Your task to perform on an android device: What's a good restaurant in Seattle? Image 0: 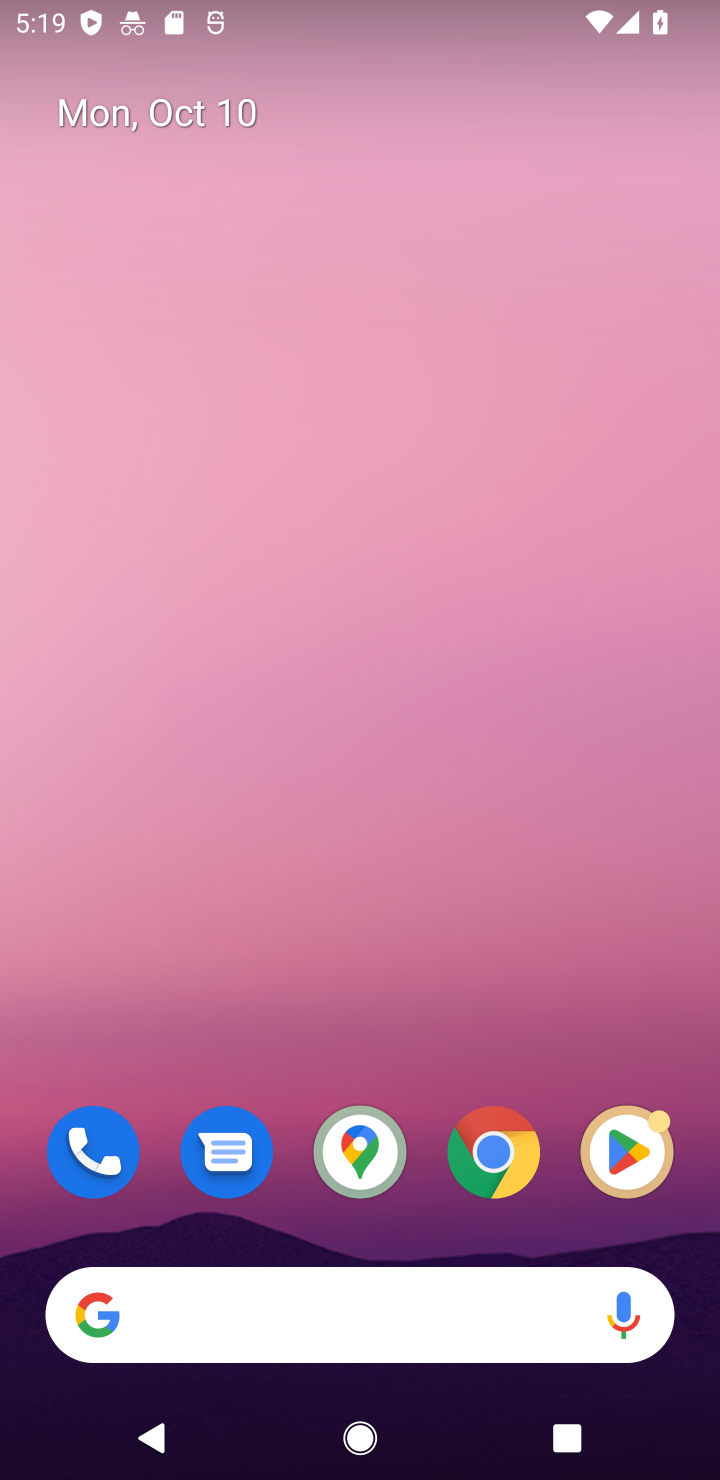
Step 0: click (488, 1147)
Your task to perform on an android device: What's a good restaurant in Seattle? Image 1: 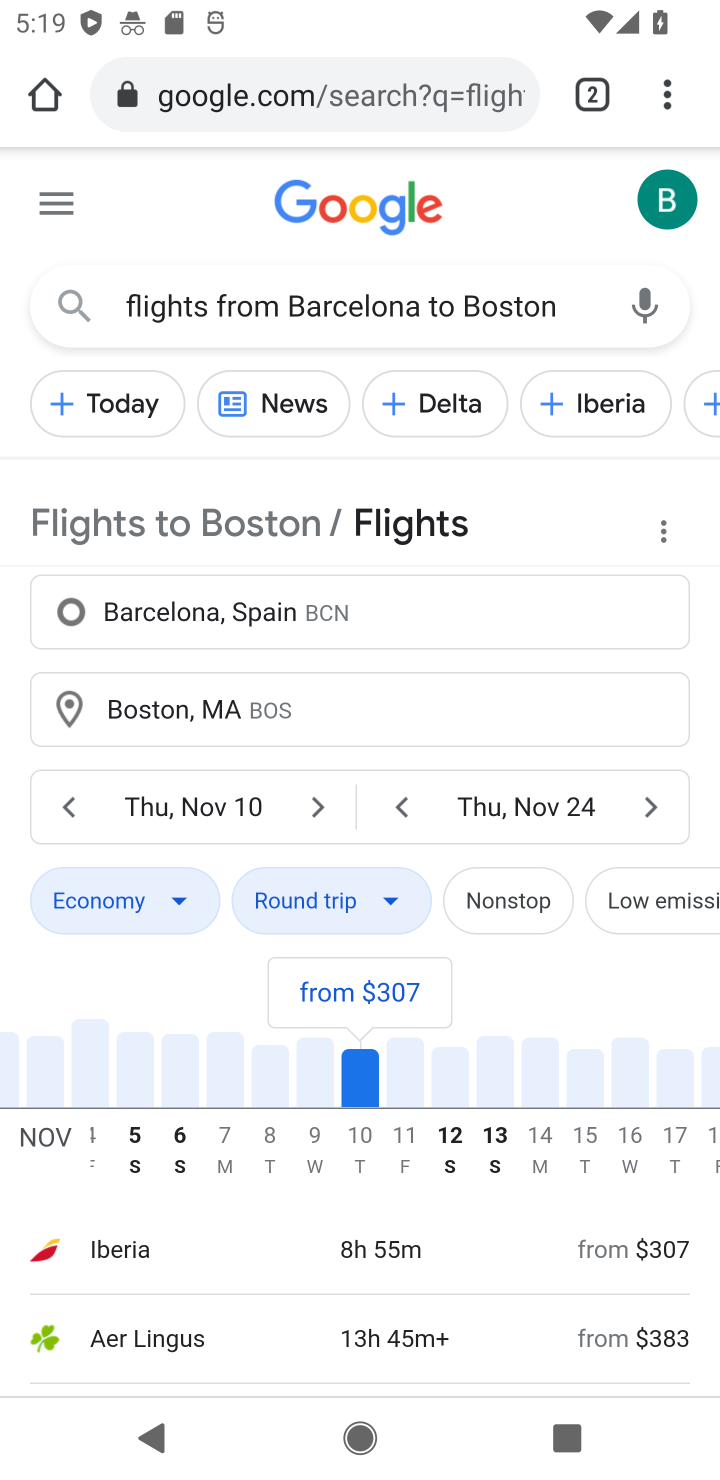
Step 1: click (448, 94)
Your task to perform on an android device: What's a good restaurant in Seattle? Image 2: 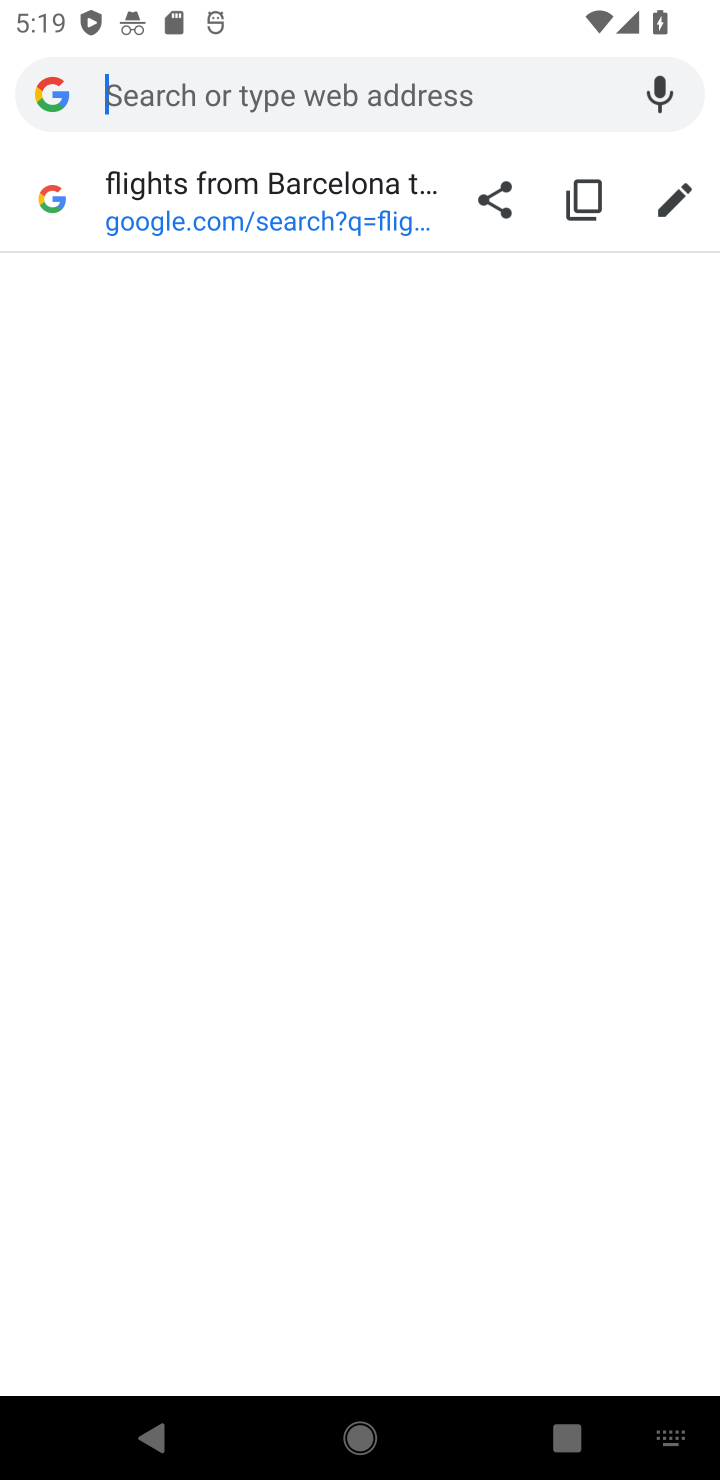
Step 2: type "What's a good restaurant in Seattle?"
Your task to perform on an android device: What's a good restaurant in Seattle? Image 3: 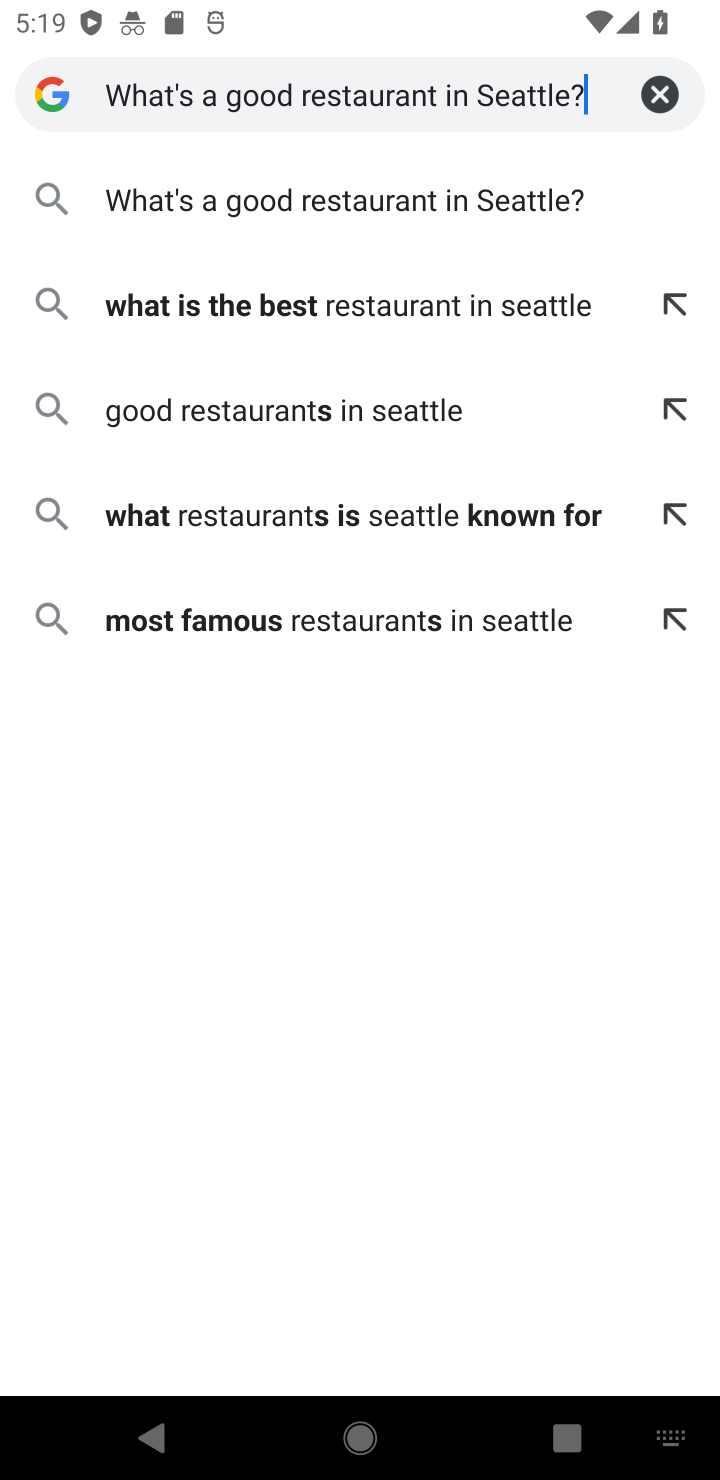
Step 3: click (507, 206)
Your task to perform on an android device: What's a good restaurant in Seattle? Image 4: 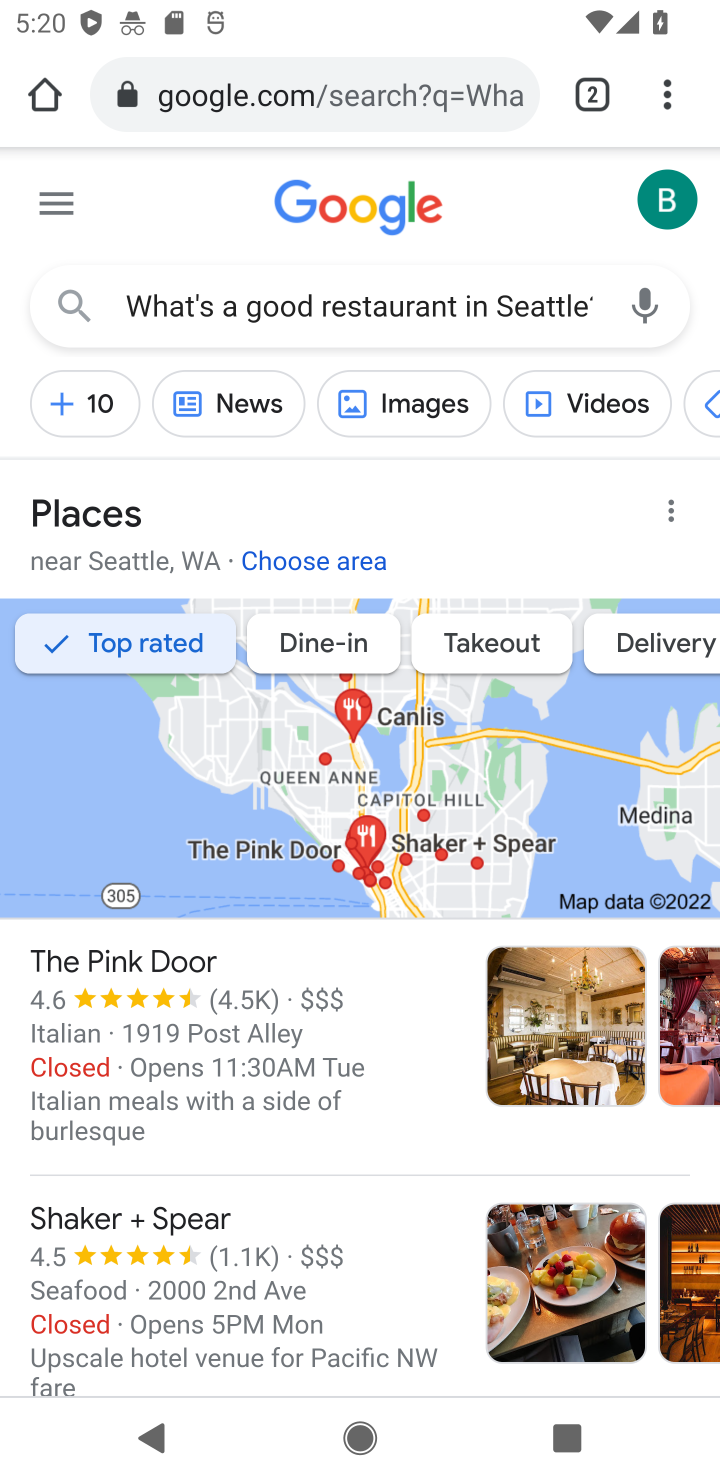
Step 4: task complete